Your task to perform on an android device: Clear all items from cart on newegg.com. Add "razer thresher" to the cart on newegg.com, then select checkout. Image 0: 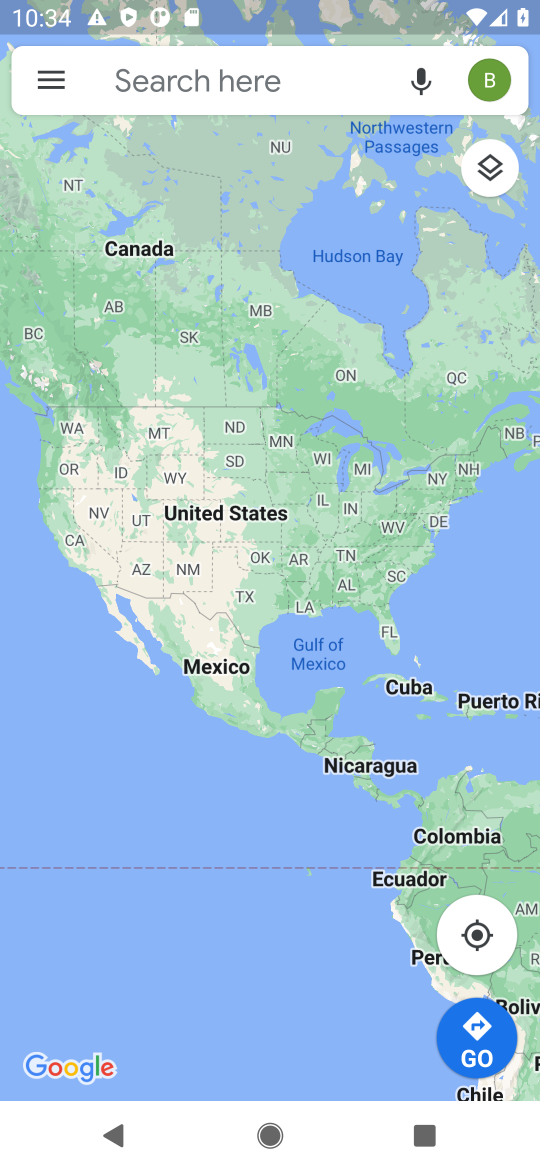
Step 0: task complete